Your task to perform on an android device: move an email to a new category in the gmail app Image 0: 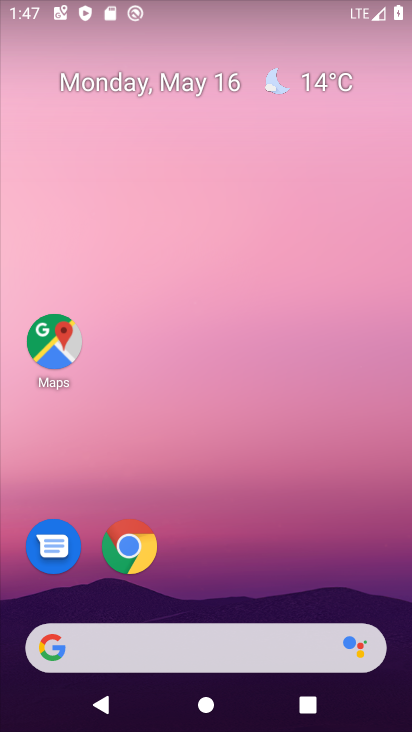
Step 0: drag from (249, 642) to (211, 197)
Your task to perform on an android device: move an email to a new category in the gmail app Image 1: 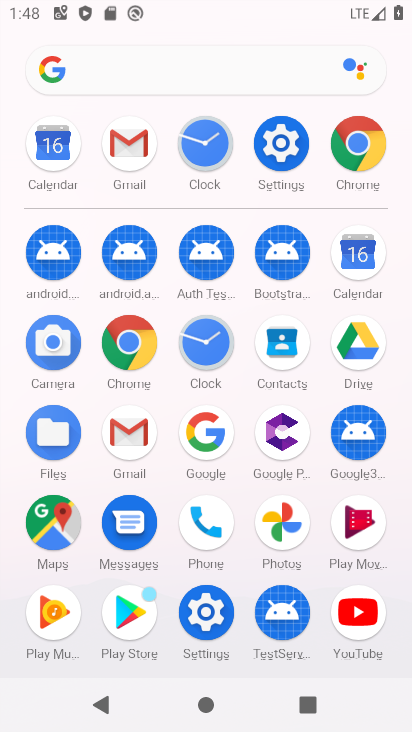
Step 1: click (125, 429)
Your task to perform on an android device: move an email to a new category in the gmail app Image 2: 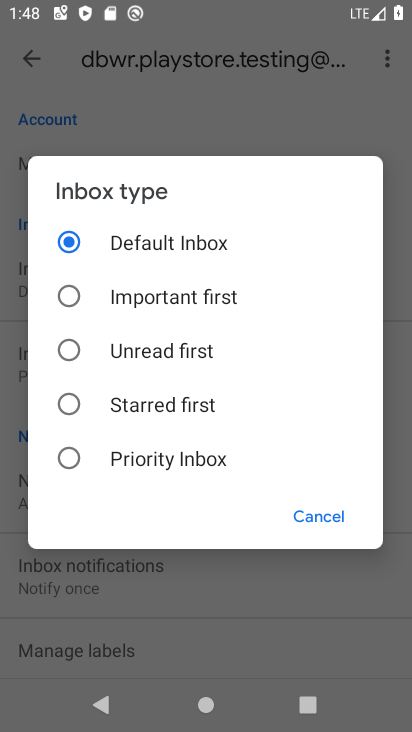
Step 2: click (323, 516)
Your task to perform on an android device: move an email to a new category in the gmail app Image 3: 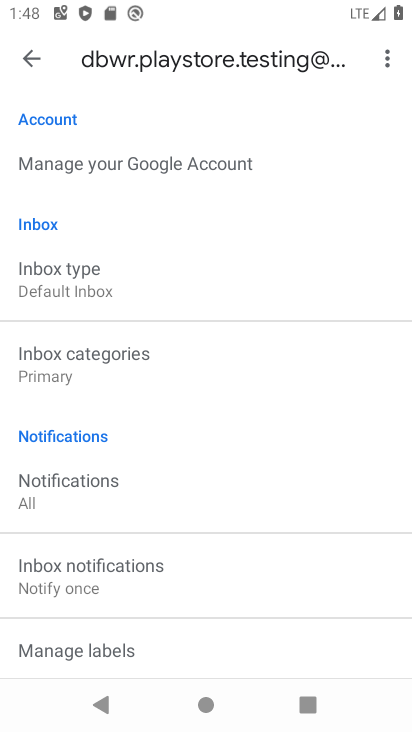
Step 3: click (127, 364)
Your task to perform on an android device: move an email to a new category in the gmail app Image 4: 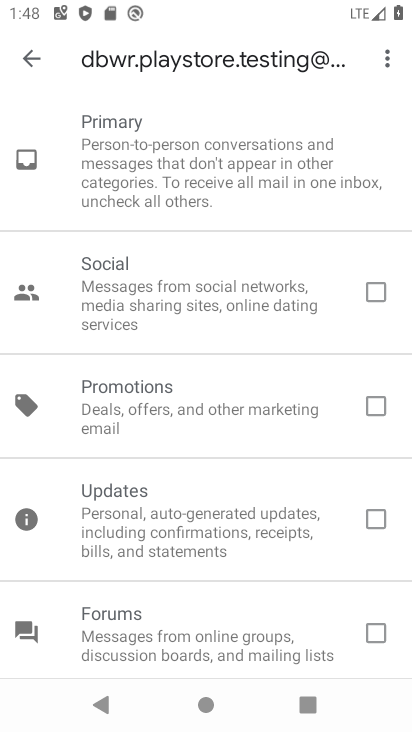
Step 4: click (380, 392)
Your task to perform on an android device: move an email to a new category in the gmail app Image 5: 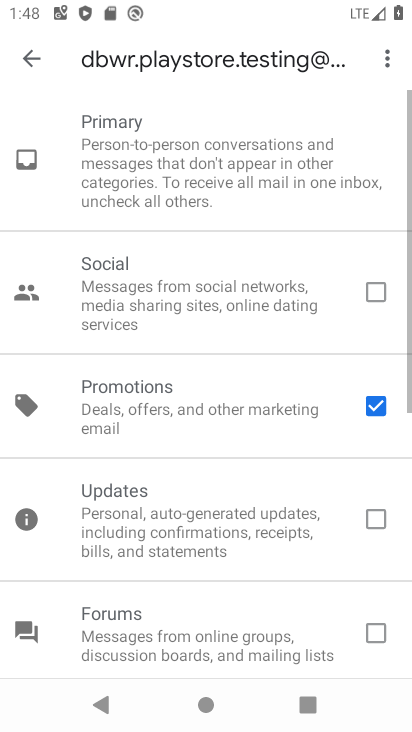
Step 5: task complete